Your task to perform on an android device: see tabs open on other devices in the chrome app Image 0: 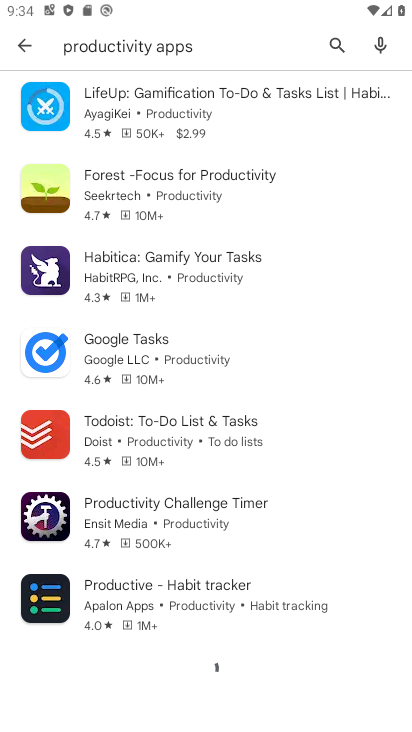
Step 0: drag from (223, 602) to (267, 440)
Your task to perform on an android device: see tabs open on other devices in the chrome app Image 1: 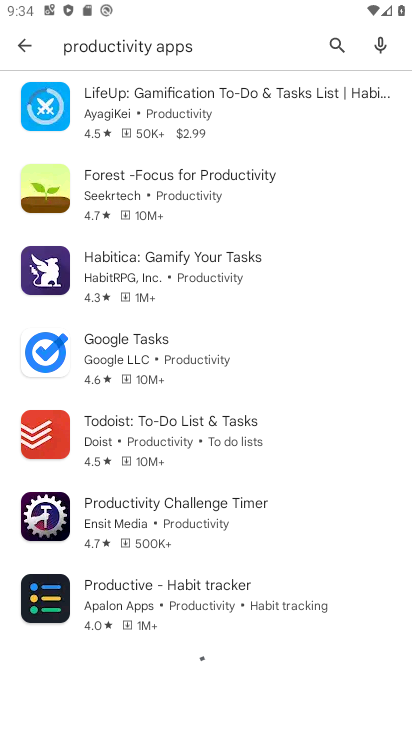
Step 1: press home button
Your task to perform on an android device: see tabs open on other devices in the chrome app Image 2: 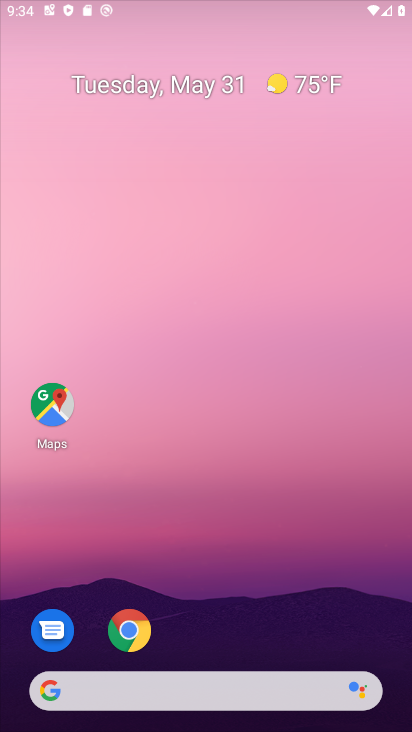
Step 2: drag from (205, 662) to (254, 273)
Your task to perform on an android device: see tabs open on other devices in the chrome app Image 3: 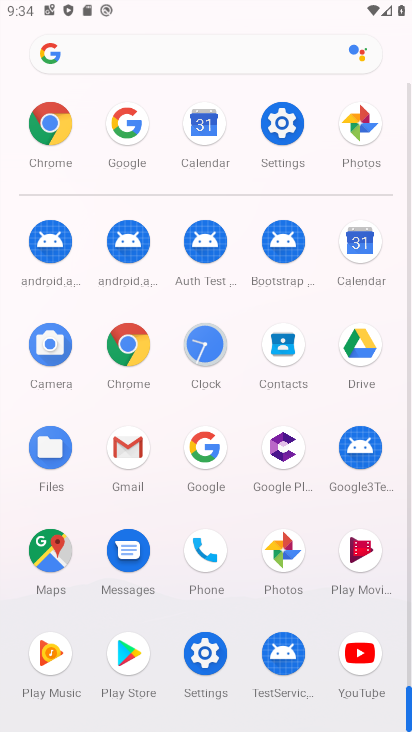
Step 3: click (68, 156)
Your task to perform on an android device: see tabs open on other devices in the chrome app Image 4: 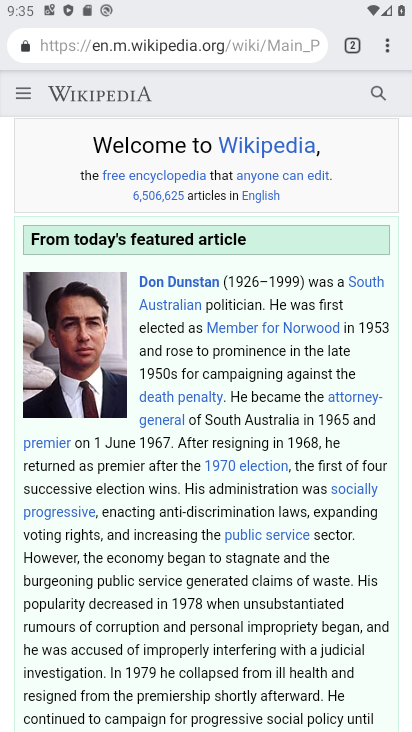
Step 4: task complete